Your task to perform on an android device: Find coffee shops on Maps Image 0: 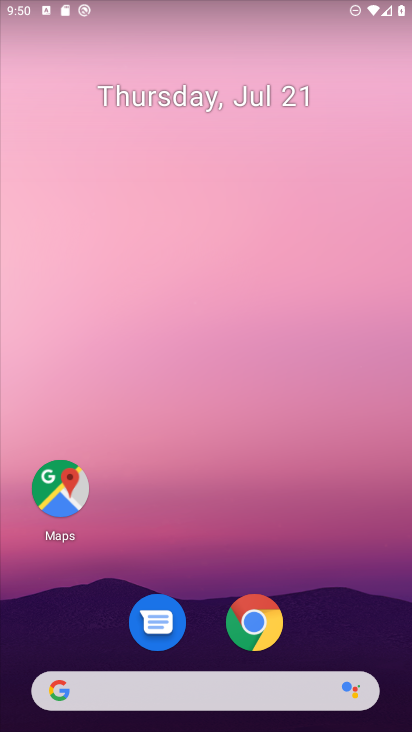
Step 0: click (77, 477)
Your task to perform on an android device: Find coffee shops on Maps Image 1: 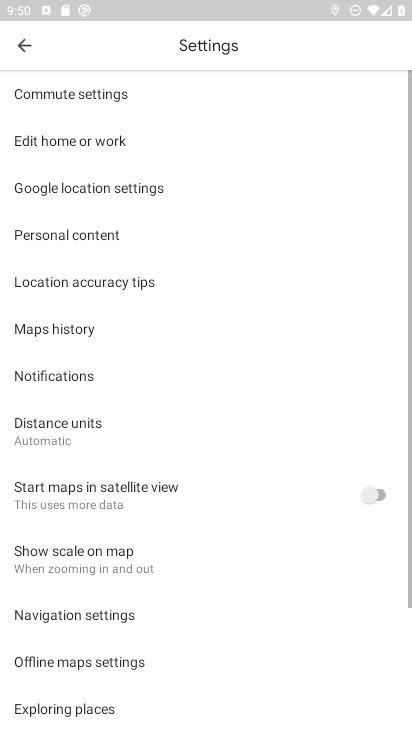
Step 1: click (19, 43)
Your task to perform on an android device: Find coffee shops on Maps Image 2: 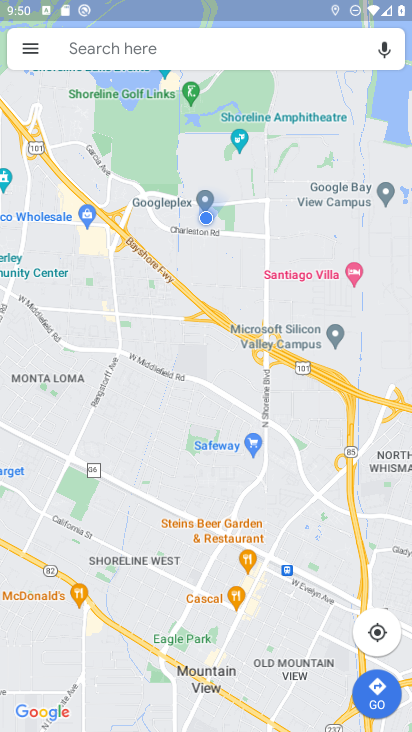
Step 2: click (95, 45)
Your task to perform on an android device: Find coffee shops on Maps Image 3: 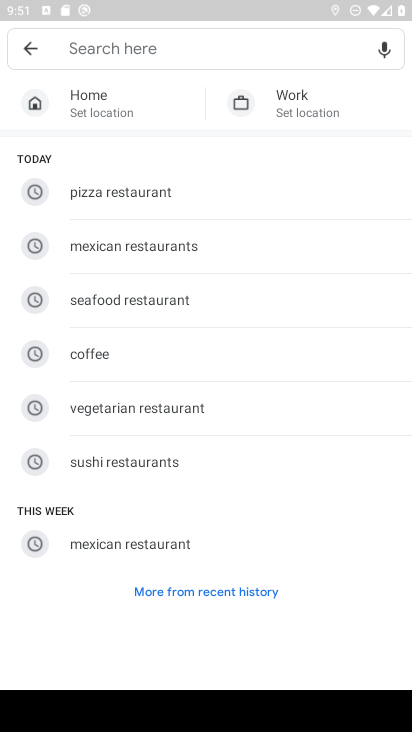
Step 3: type "coffee shops "
Your task to perform on an android device: Find coffee shops on Maps Image 4: 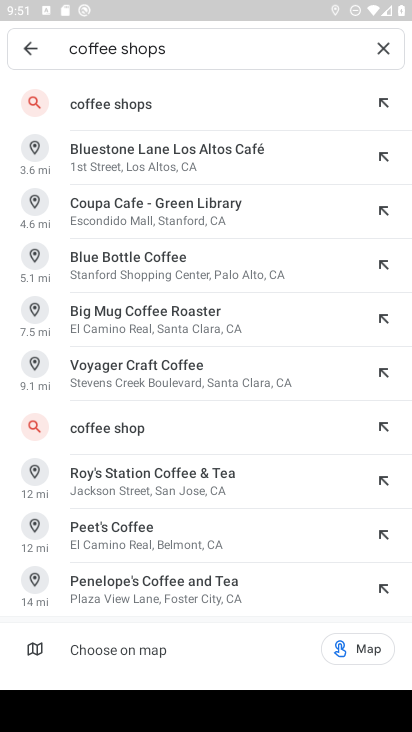
Step 4: click (142, 99)
Your task to perform on an android device: Find coffee shops on Maps Image 5: 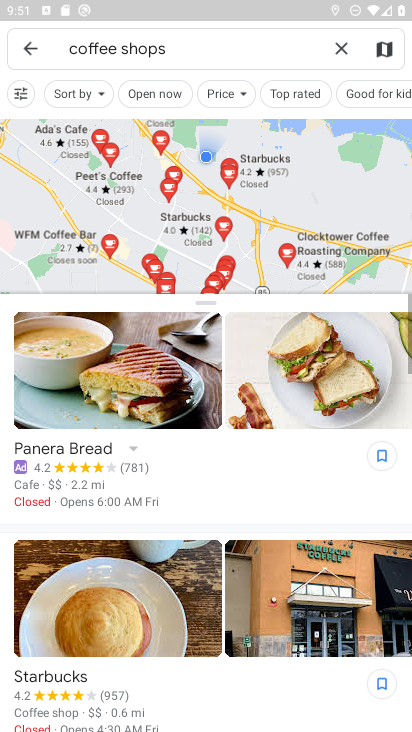
Step 5: task complete